Your task to perform on an android device: see tabs open on other devices in the chrome app Image 0: 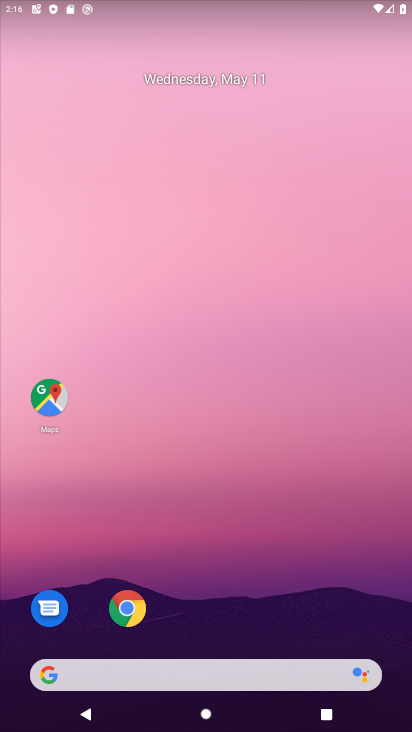
Step 0: click (122, 608)
Your task to perform on an android device: see tabs open on other devices in the chrome app Image 1: 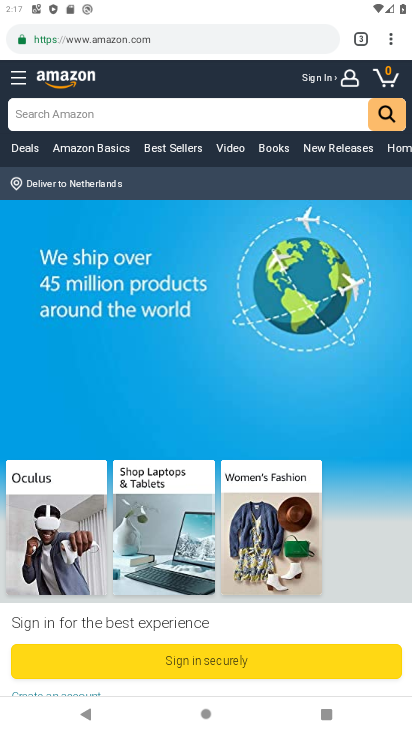
Step 1: click (393, 38)
Your task to perform on an android device: see tabs open on other devices in the chrome app Image 2: 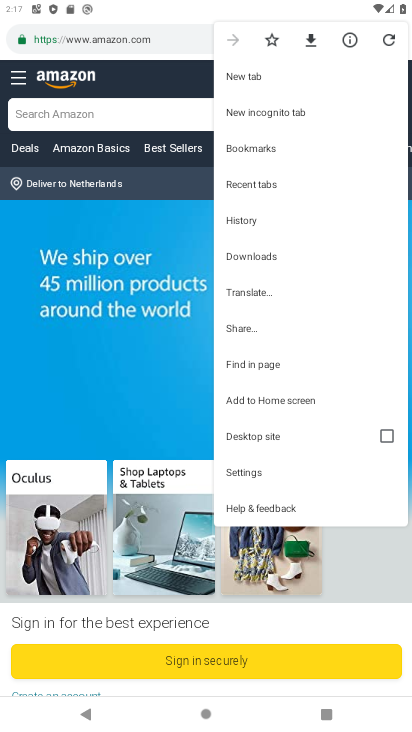
Step 2: click (272, 180)
Your task to perform on an android device: see tabs open on other devices in the chrome app Image 3: 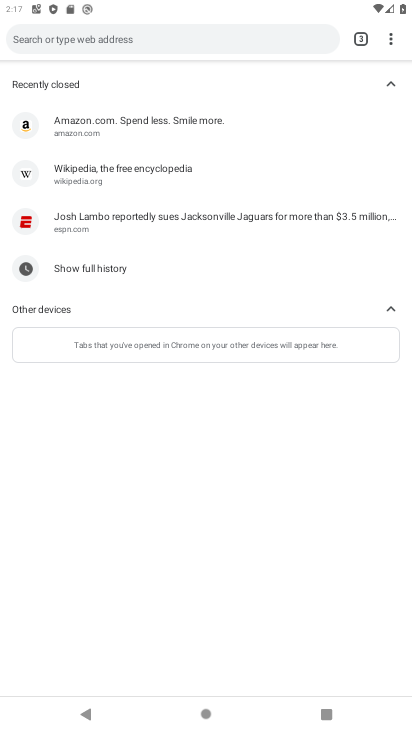
Step 3: task complete